Your task to perform on an android device: allow notifications from all sites in the chrome app Image 0: 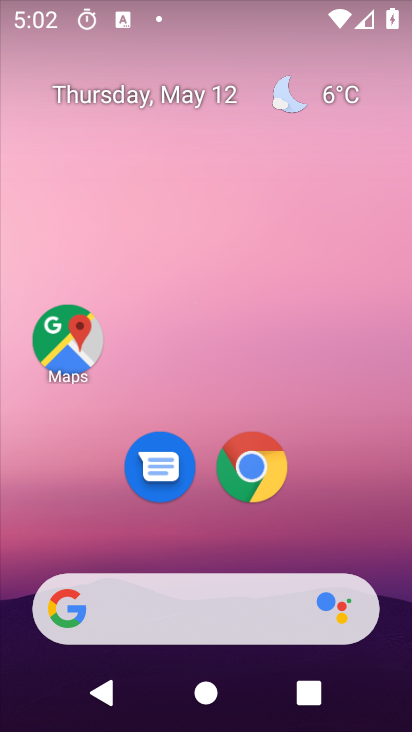
Step 0: drag from (180, 559) to (271, 15)
Your task to perform on an android device: allow notifications from all sites in the chrome app Image 1: 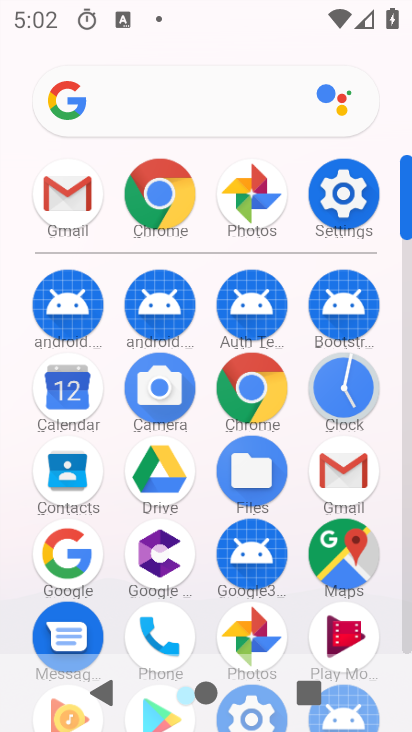
Step 1: click (251, 365)
Your task to perform on an android device: allow notifications from all sites in the chrome app Image 2: 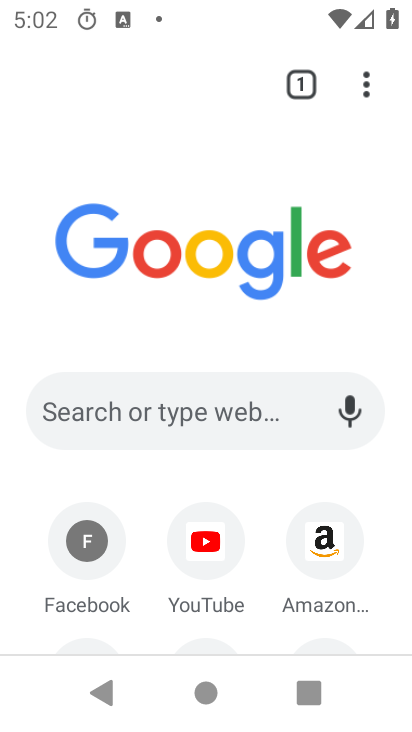
Step 2: drag from (367, 79) to (184, 530)
Your task to perform on an android device: allow notifications from all sites in the chrome app Image 3: 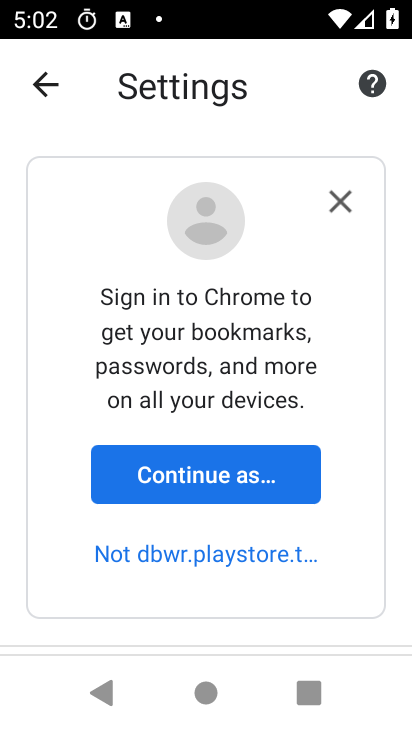
Step 3: drag from (246, 598) to (273, 145)
Your task to perform on an android device: allow notifications from all sites in the chrome app Image 4: 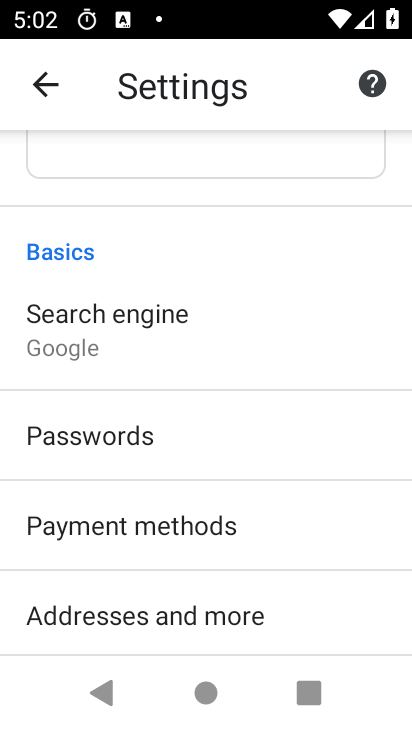
Step 4: drag from (261, 600) to (247, 153)
Your task to perform on an android device: allow notifications from all sites in the chrome app Image 5: 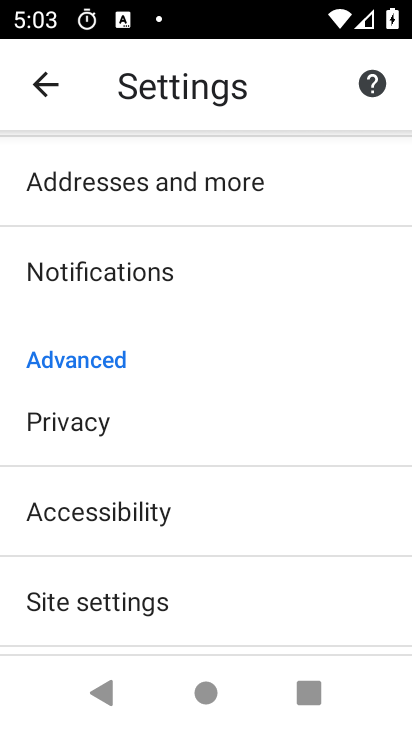
Step 5: drag from (99, 605) to (130, 422)
Your task to perform on an android device: allow notifications from all sites in the chrome app Image 6: 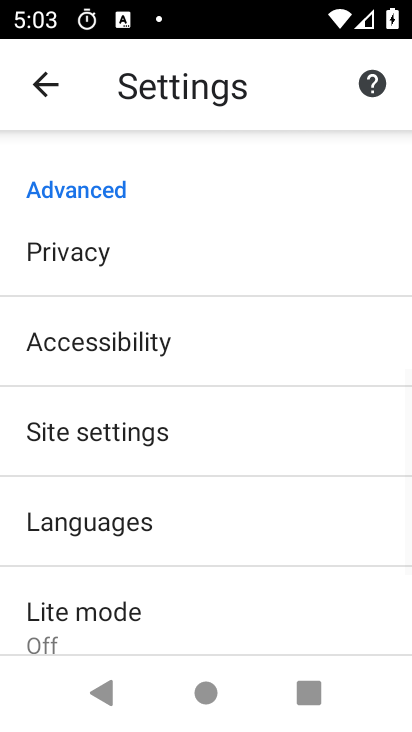
Step 6: click (129, 424)
Your task to perform on an android device: allow notifications from all sites in the chrome app Image 7: 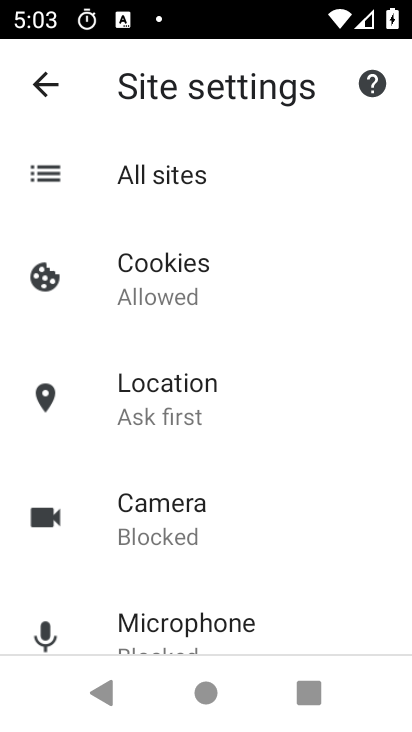
Step 7: drag from (173, 620) to (182, 270)
Your task to perform on an android device: allow notifications from all sites in the chrome app Image 8: 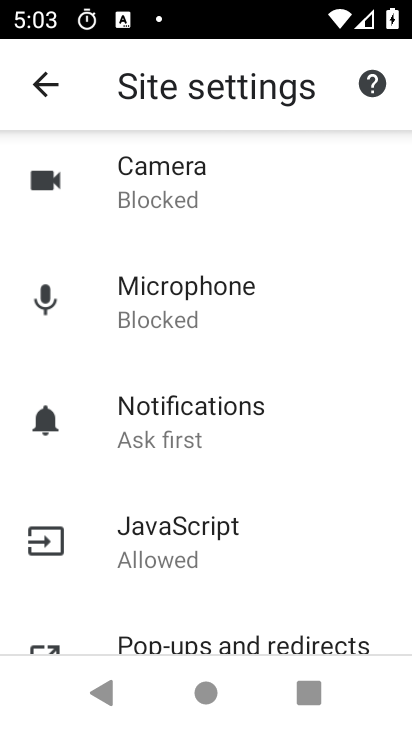
Step 8: click (188, 426)
Your task to perform on an android device: allow notifications from all sites in the chrome app Image 9: 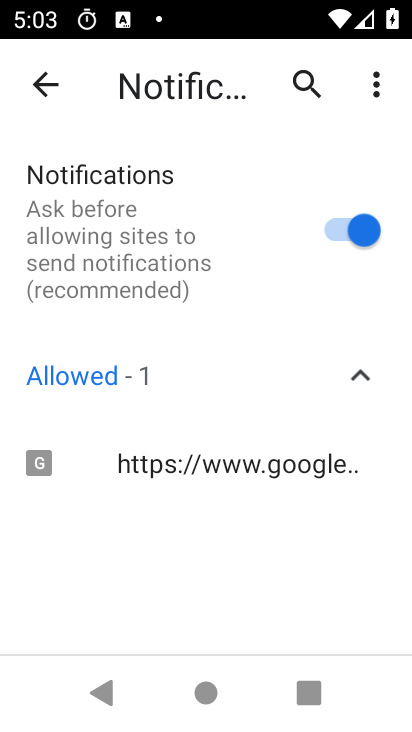
Step 9: click (283, 451)
Your task to perform on an android device: allow notifications from all sites in the chrome app Image 10: 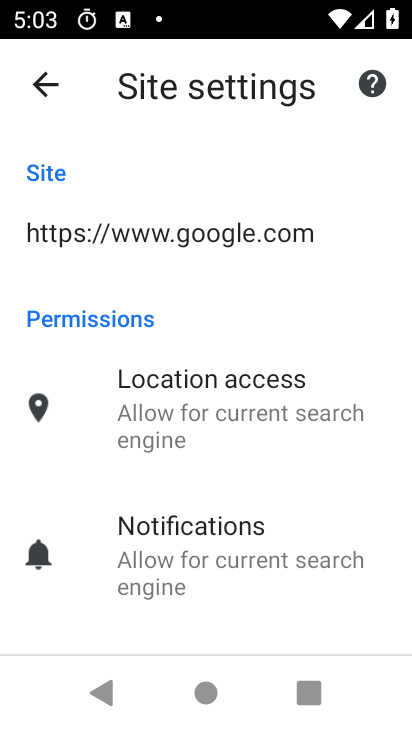
Step 10: task complete